Your task to perform on an android device: turn on bluetooth scan Image 0: 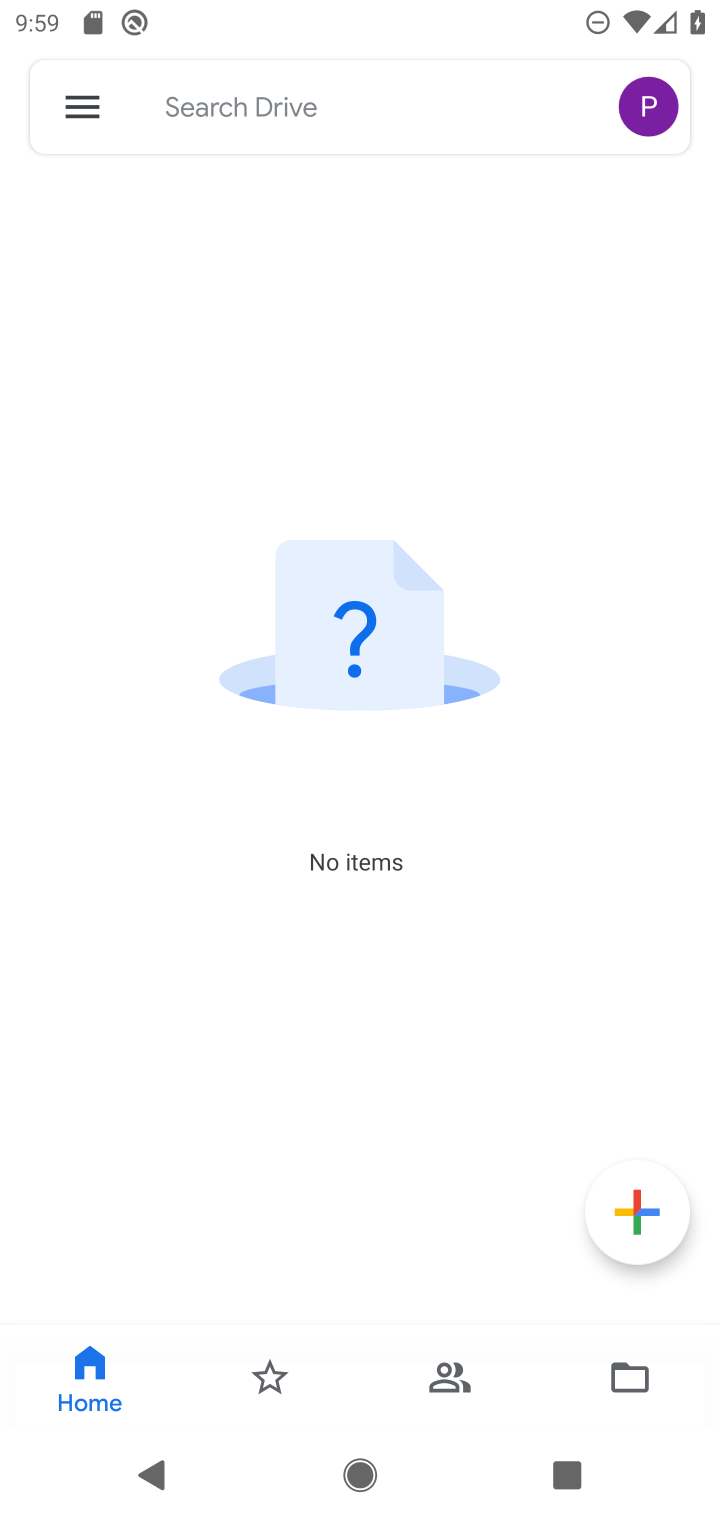
Step 0: press home button
Your task to perform on an android device: turn on bluetooth scan Image 1: 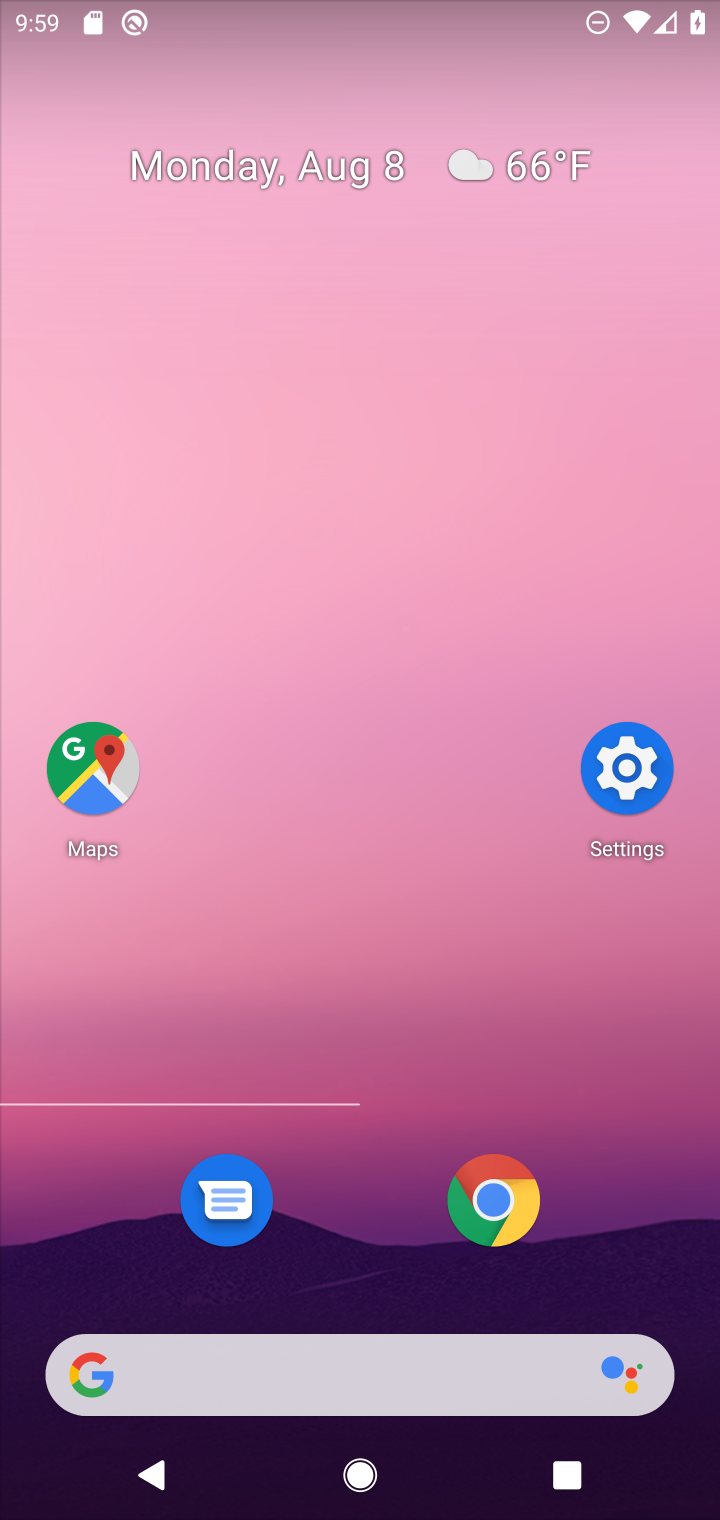
Step 1: click (625, 758)
Your task to perform on an android device: turn on bluetooth scan Image 2: 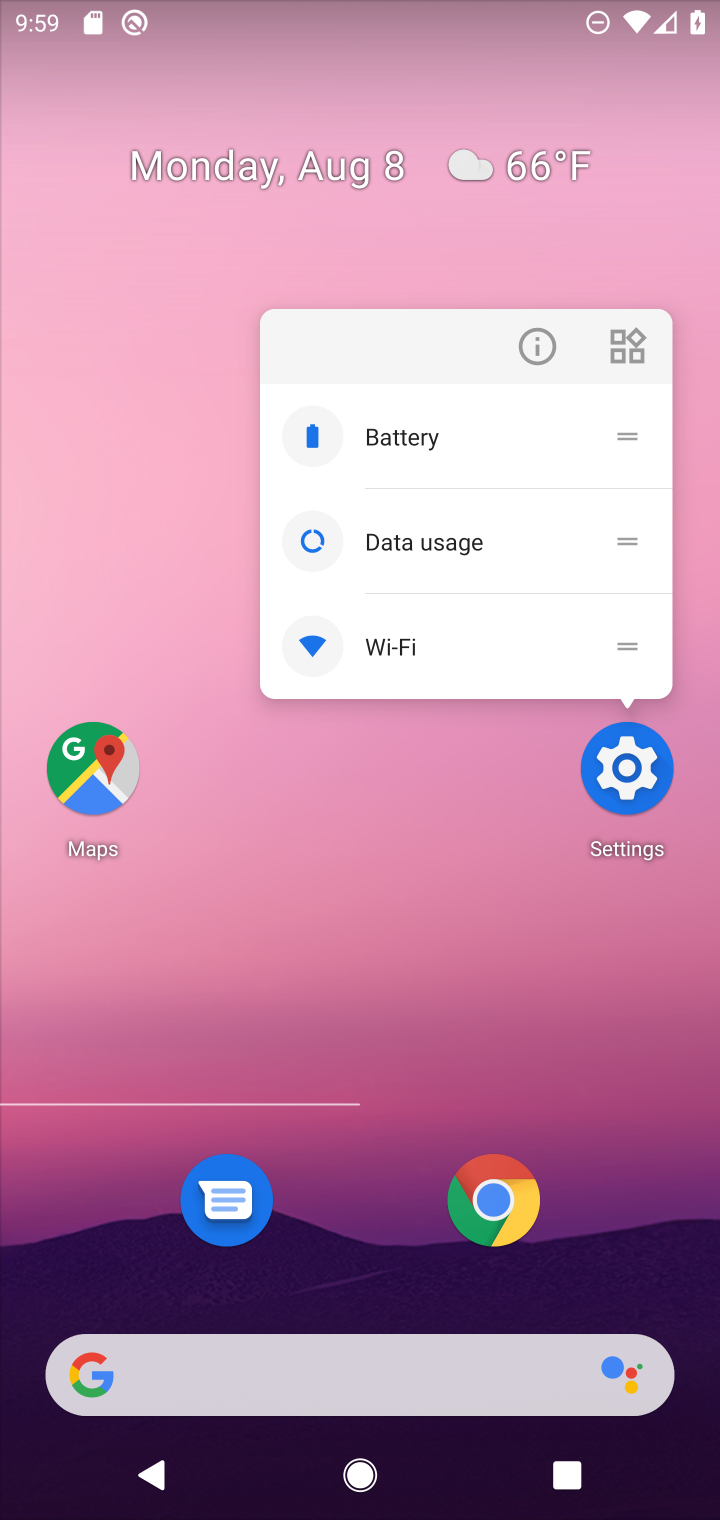
Step 2: click (625, 764)
Your task to perform on an android device: turn on bluetooth scan Image 3: 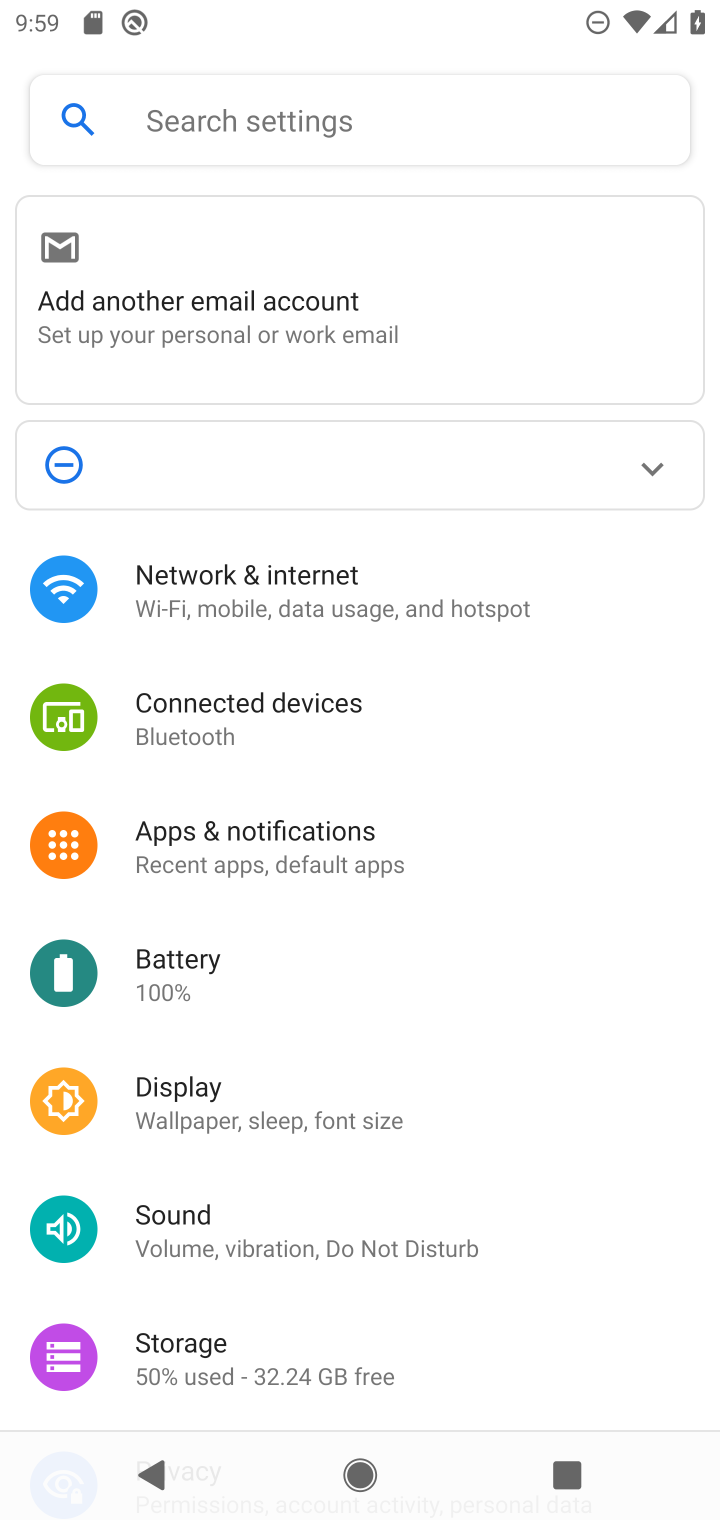
Step 3: drag from (320, 1347) to (652, 166)
Your task to perform on an android device: turn on bluetooth scan Image 4: 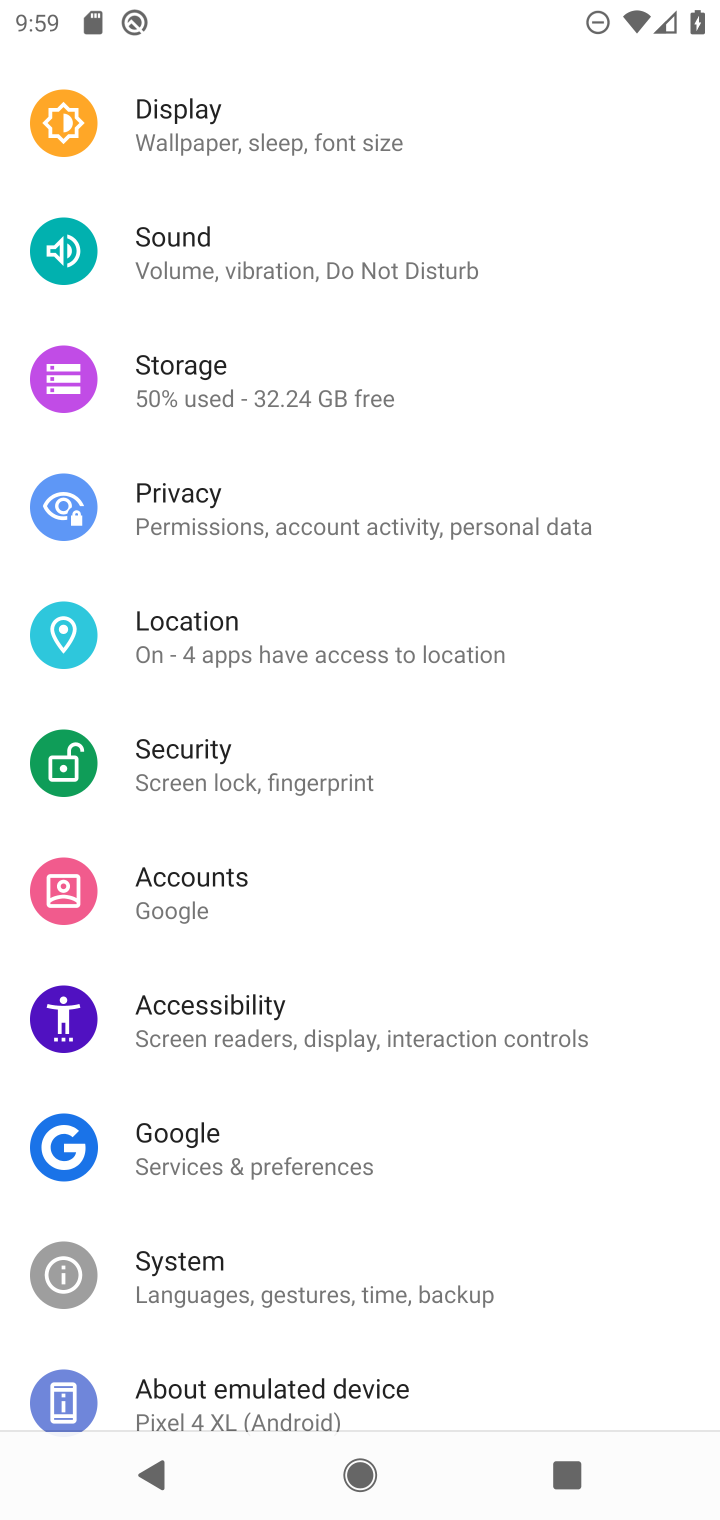
Step 4: click (204, 641)
Your task to perform on an android device: turn on bluetooth scan Image 5: 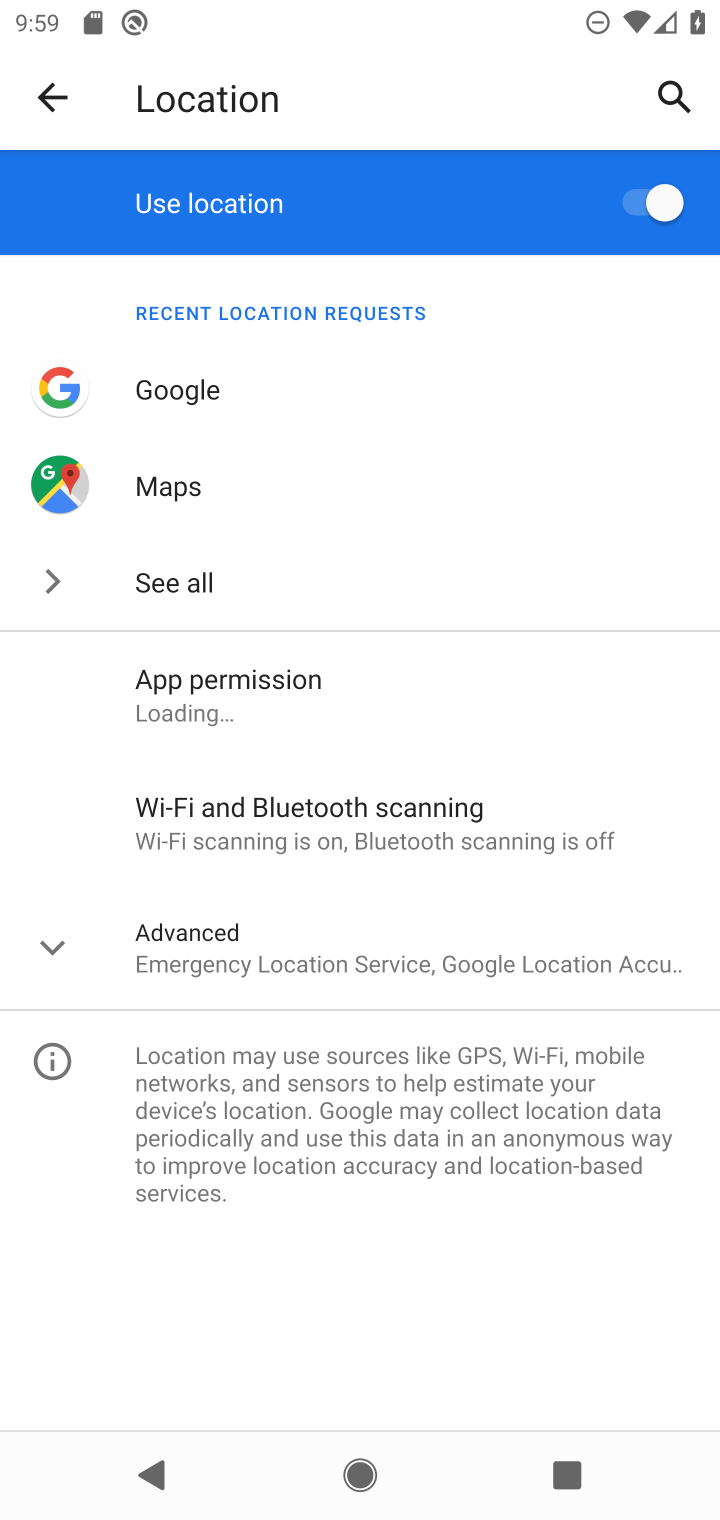
Step 5: click (336, 826)
Your task to perform on an android device: turn on bluetooth scan Image 6: 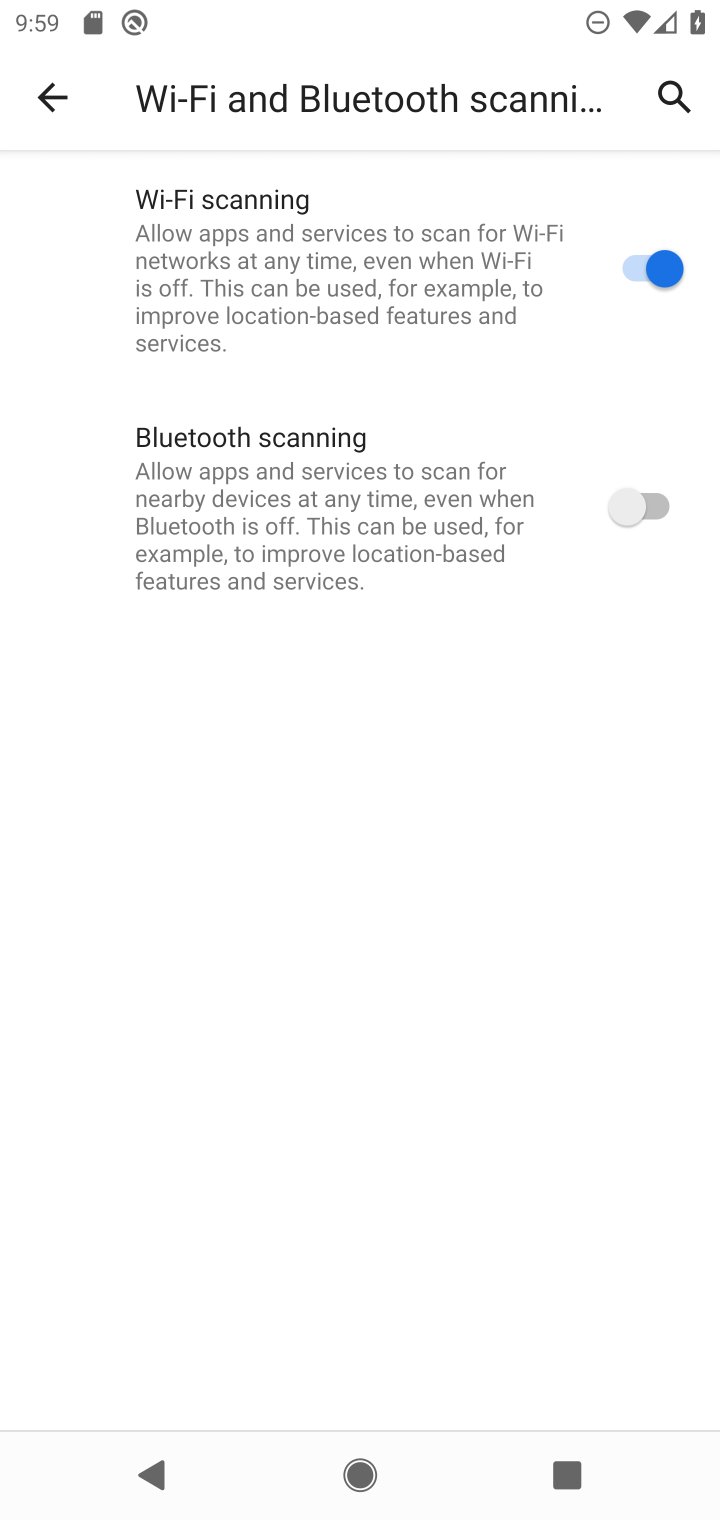
Step 6: click (648, 502)
Your task to perform on an android device: turn on bluetooth scan Image 7: 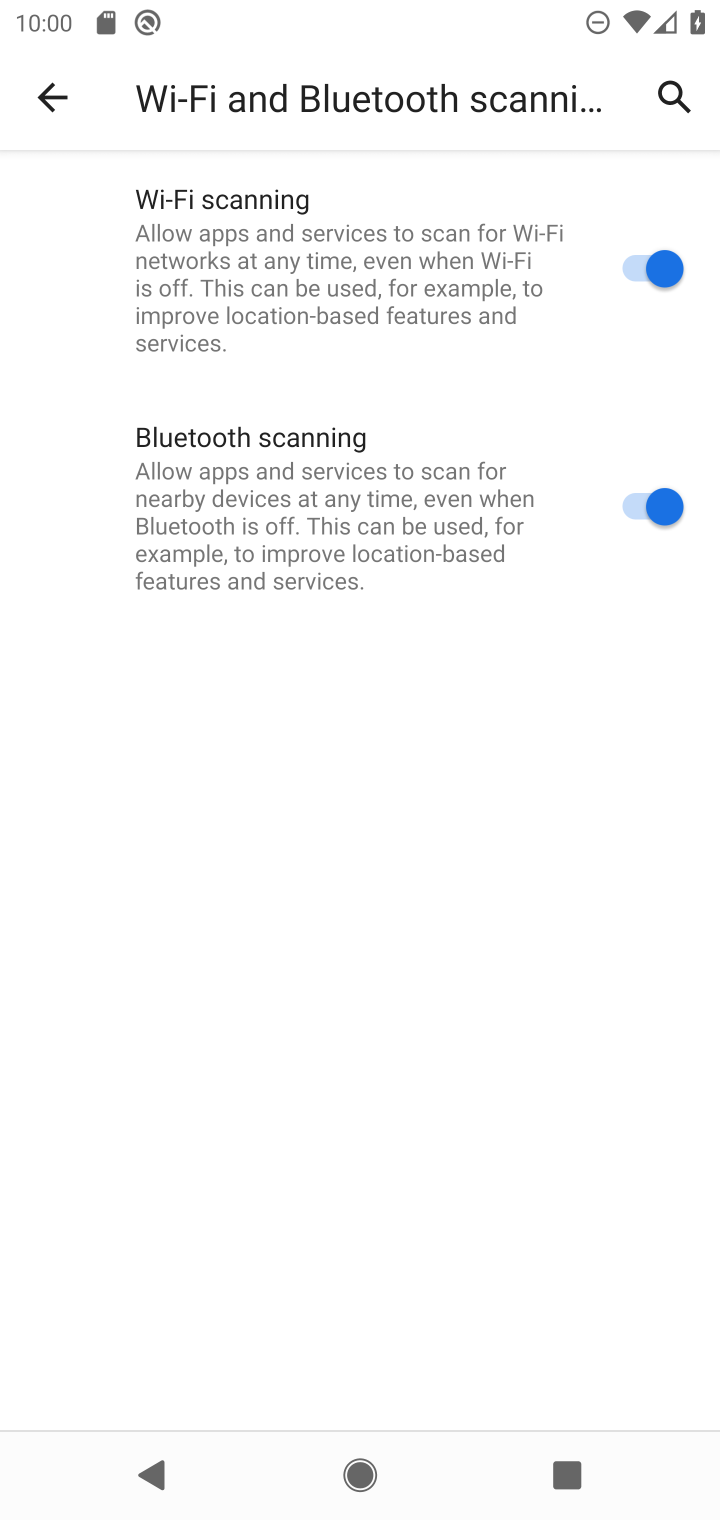
Step 7: task complete